Your task to perform on an android device: Open Google Chrome Image 0: 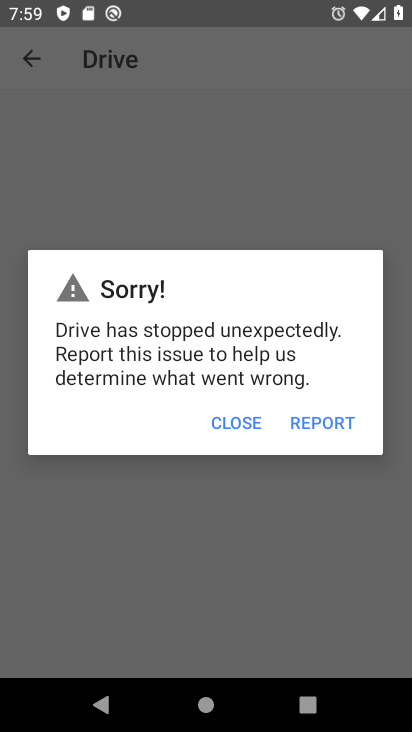
Step 0: click (232, 425)
Your task to perform on an android device: Open Google Chrome Image 1: 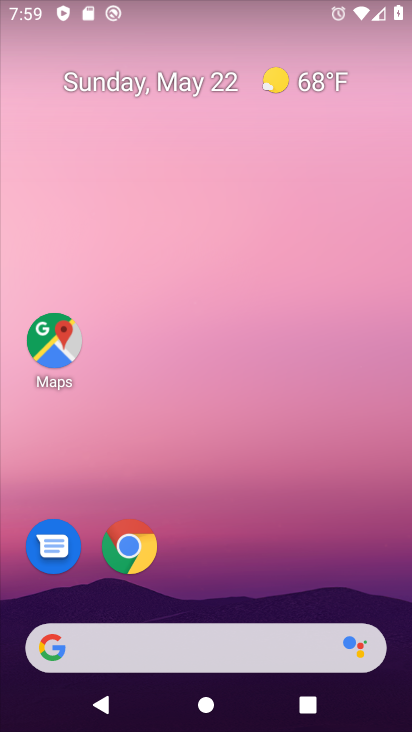
Step 1: drag from (252, 613) to (246, 68)
Your task to perform on an android device: Open Google Chrome Image 2: 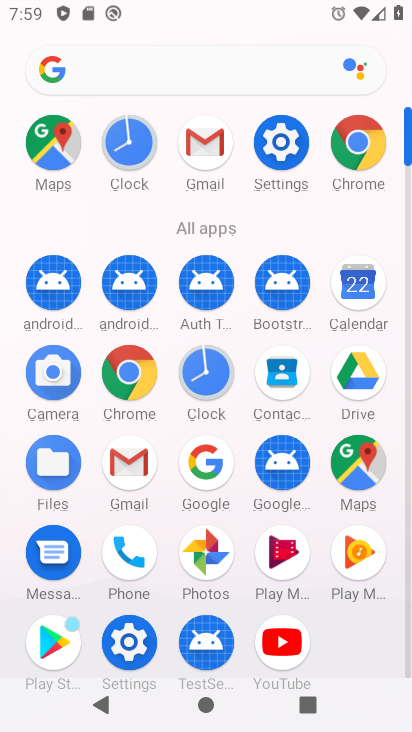
Step 2: click (333, 149)
Your task to perform on an android device: Open Google Chrome Image 3: 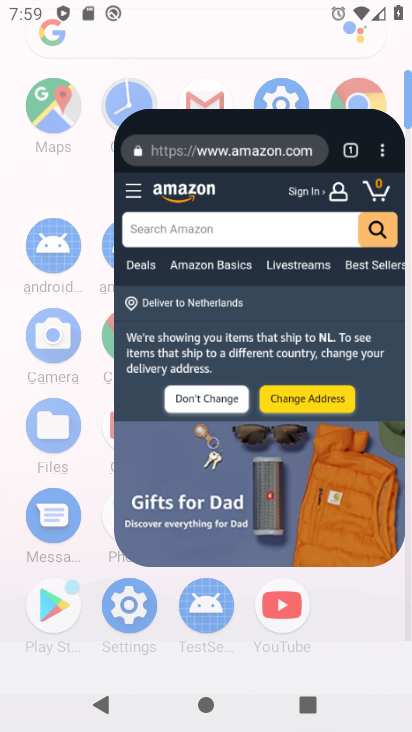
Step 3: click (346, 140)
Your task to perform on an android device: Open Google Chrome Image 4: 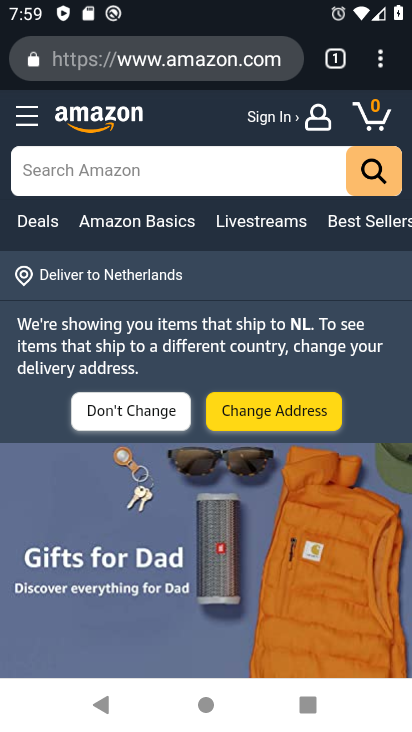
Step 4: drag from (383, 66) to (177, 113)
Your task to perform on an android device: Open Google Chrome Image 5: 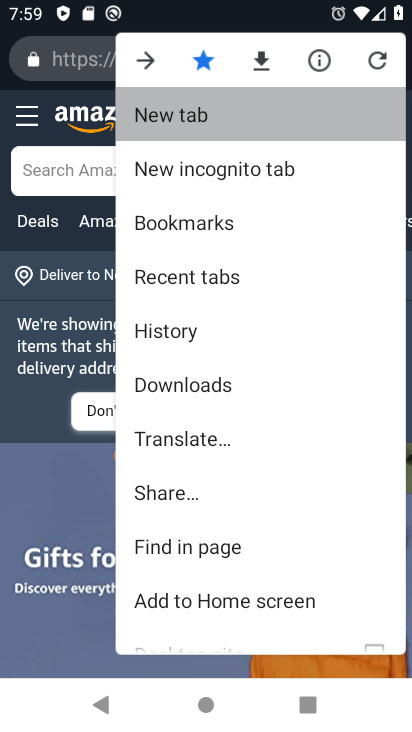
Step 5: click (177, 113)
Your task to perform on an android device: Open Google Chrome Image 6: 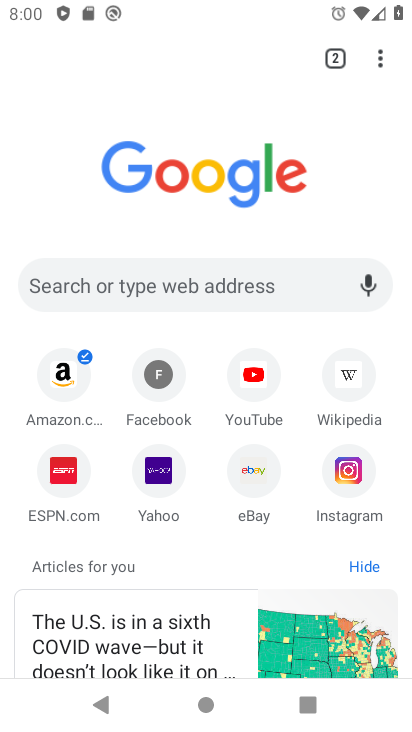
Step 6: task complete